Your task to perform on an android device: Search for vegetarian restaurants on Maps Image 0: 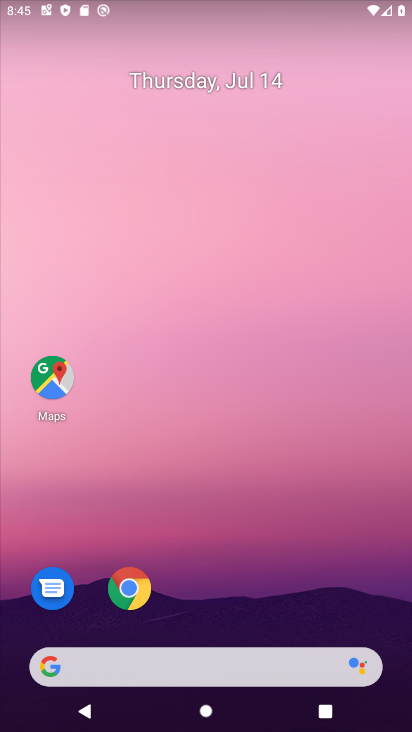
Step 0: click (49, 382)
Your task to perform on an android device: Search for vegetarian restaurants on Maps Image 1: 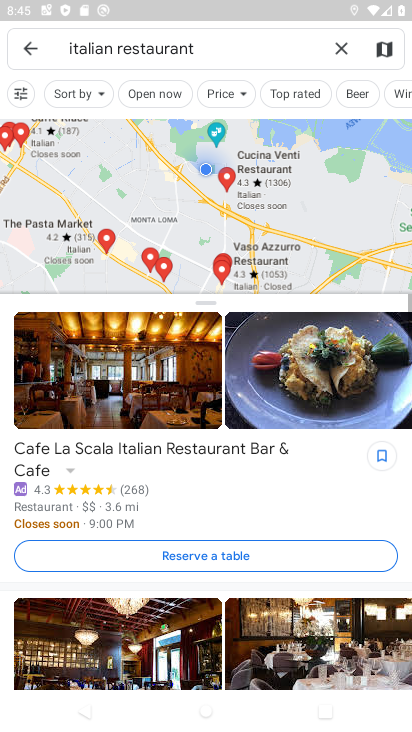
Step 1: click (338, 44)
Your task to perform on an android device: Search for vegetarian restaurants on Maps Image 2: 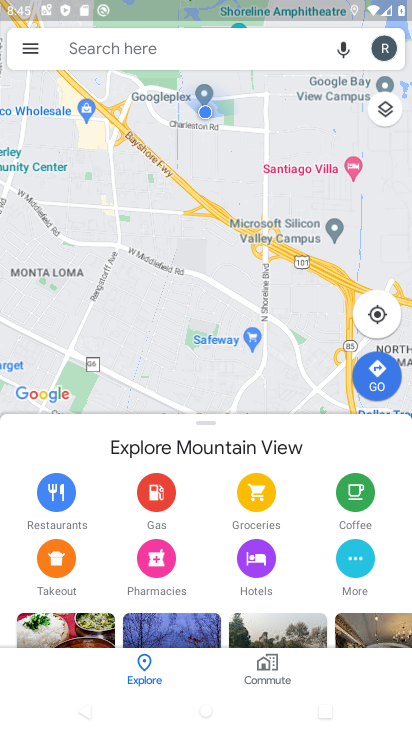
Step 2: click (229, 41)
Your task to perform on an android device: Search for vegetarian restaurants on Maps Image 3: 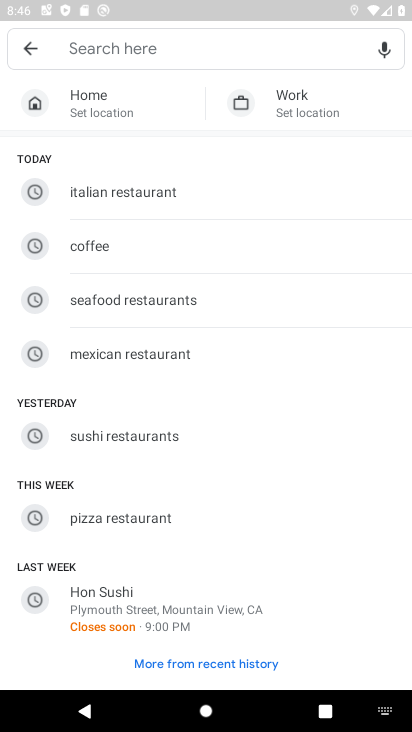
Step 3: type "vegetarian restaurent"
Your task to perform on an android device: Search for vegetarian restaurants on Maps Image 4: 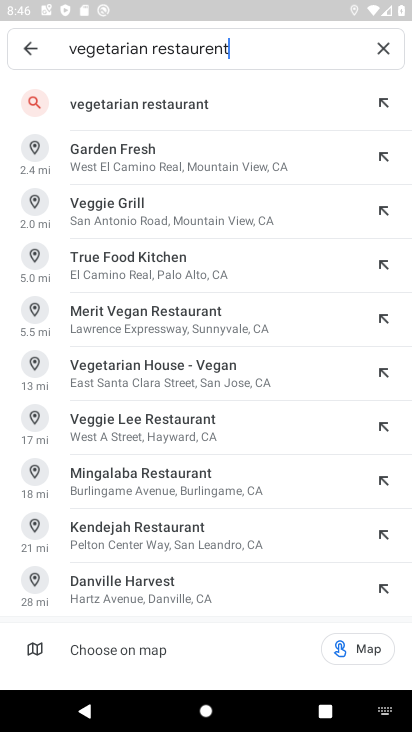
Step 4: click (139, 104)
Your task to perform on an android device: Search for vegetarian restaurants on Maps Image 5: 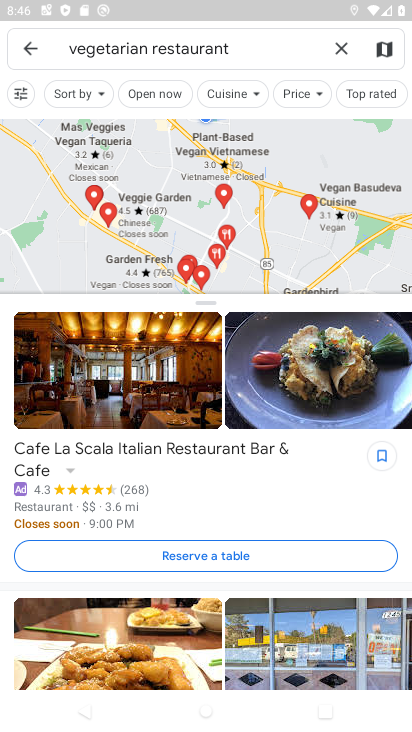
Step 5: task complete